Your task to perform on an android device: add a contact Image 0: 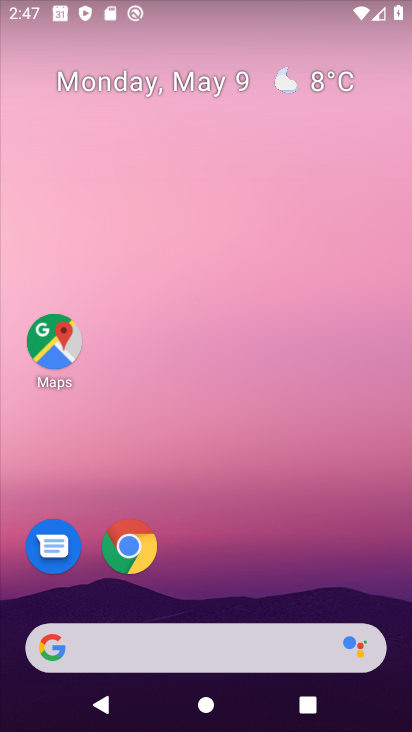
Step 0: drag from (240, 558) to (197, 29)
Your task to perform on an android device: add a contact Image 1: 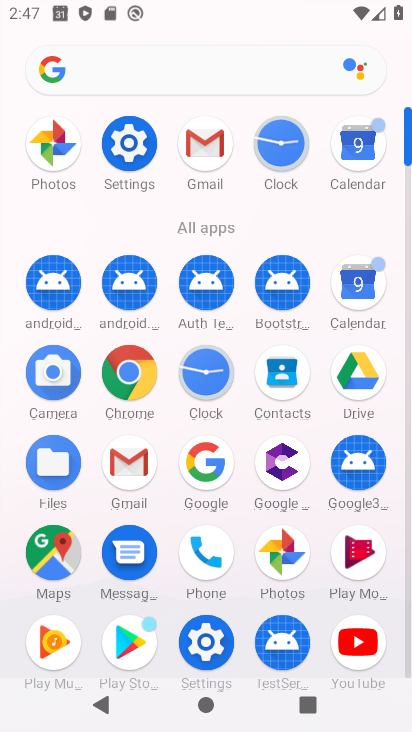
Step 1: click (283, 379)
Your task to perform on an android device: add a contact Image 2: 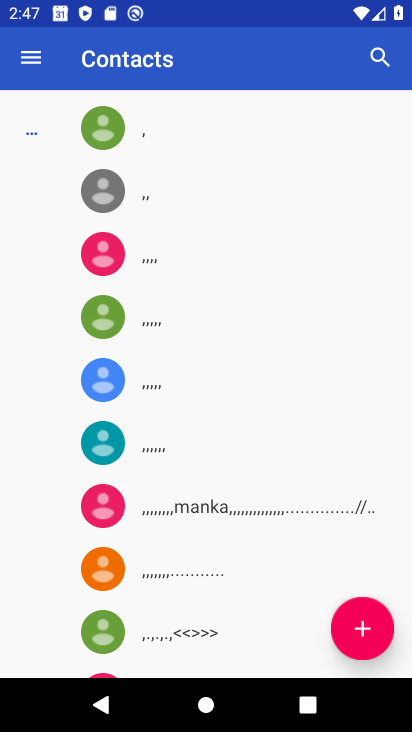
Step 2: click (376, 643)
Your task to perform on an android device: add a contact Image 3: 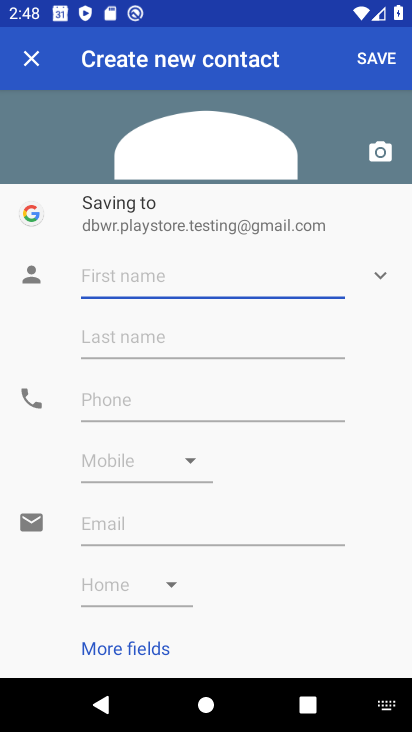
Step 3: type "Maha Rana Pratap"
Your task to perform on an android device: add a contact Image 4: 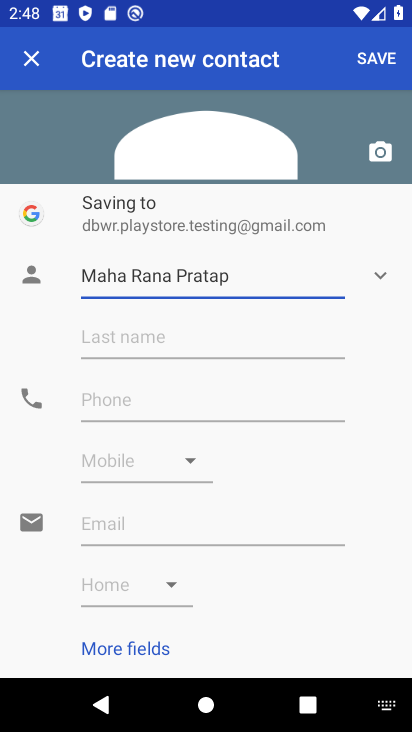
Step 4: click (127, 332)
Your task to perform on an android device: add a contact Image 5: 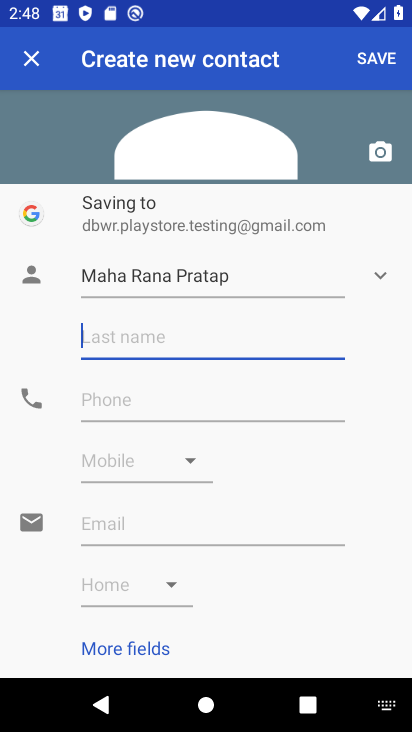
Step 5: type "Rana Sanga"
Your task to perform on an android device: add a contact Image 6: 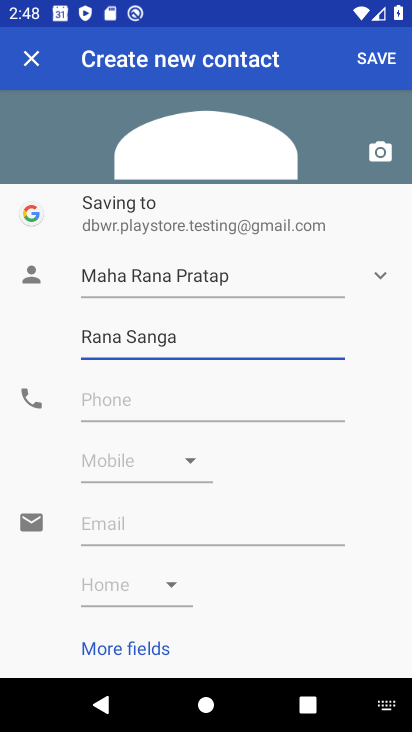
Step 6: click (219, 398)
Your task to perform on an android device: add a contact Image 7: 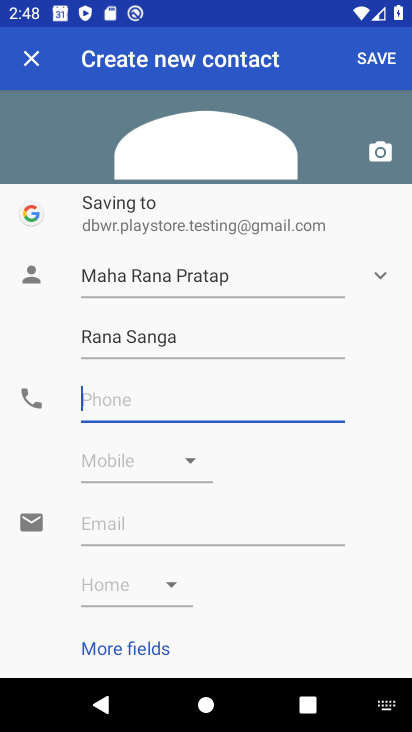
Step 7: type "0119988776655"
Your task to perform on an android device: add a contact Image 8: 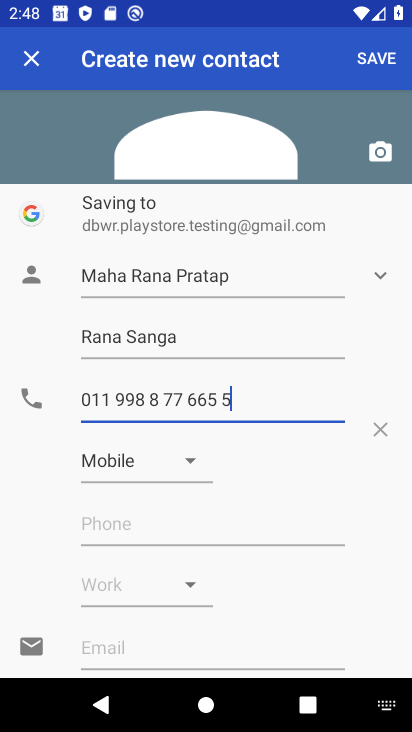
Step 8: click (384, 60)
Your task to perform on an android device: add a contact Image 9: 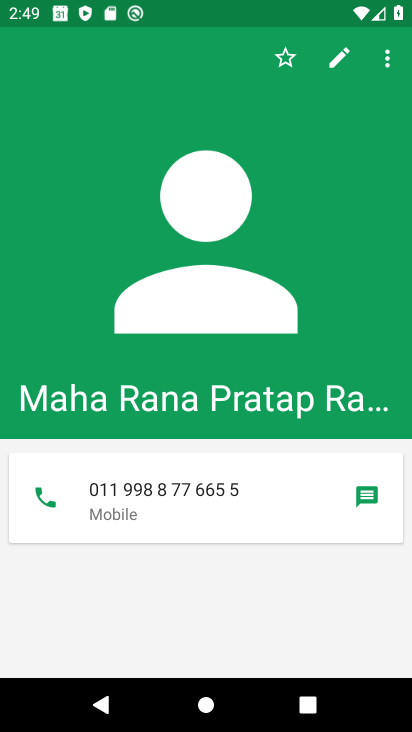
Step 9: task complete